Your task to perform on an android device: turn off wifi Image 0: 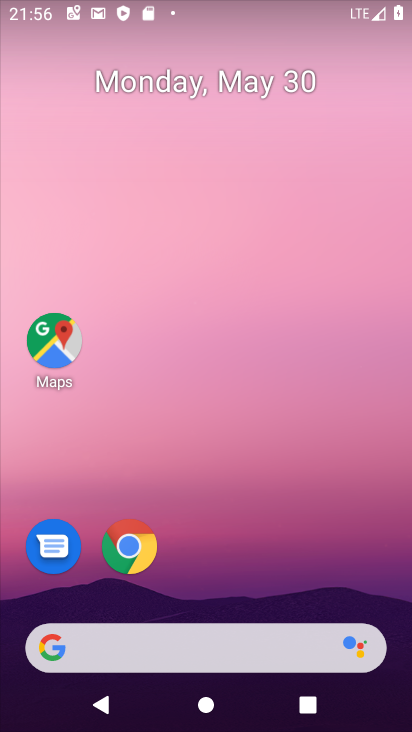
Step 0: drag from (371, 543) to (354, 161)
Your task to perform on an android device: turn off wifi Image 1: 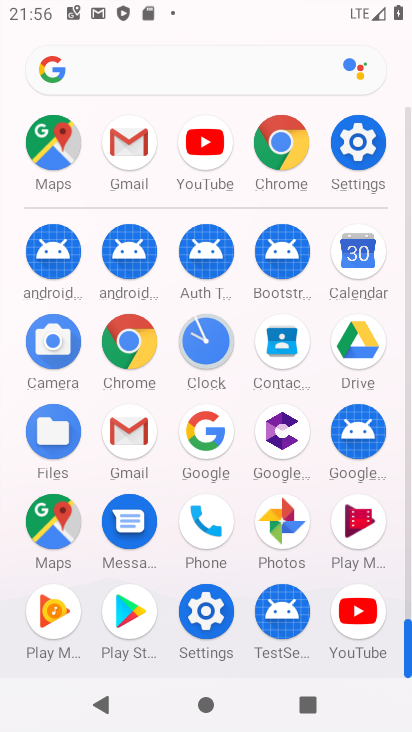
Step 1: click (358, 156)
Your task to perform on an android device: turn off wifi Image 2: 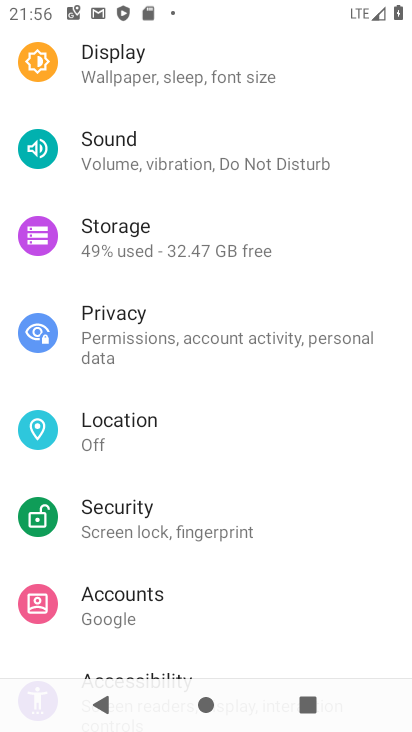
Step 2: drag from (294, 127) to (298, 646)
Your task to perform on an android device: turn off wifi Image 3: 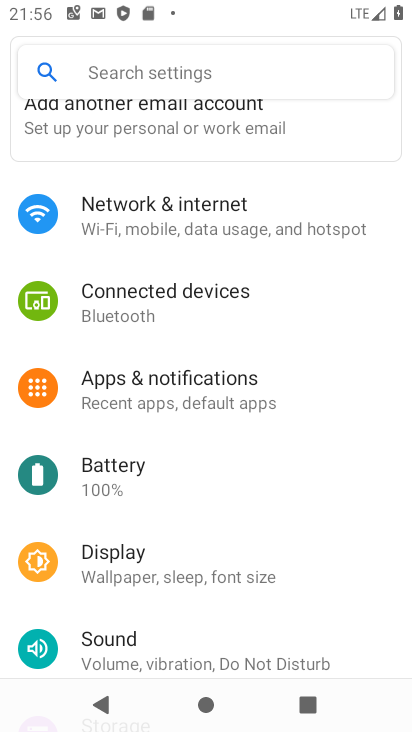
Step 3: drag from (299, 181) to (279, 507)
Your task to perform on an android device: turn off wifi Image 4: 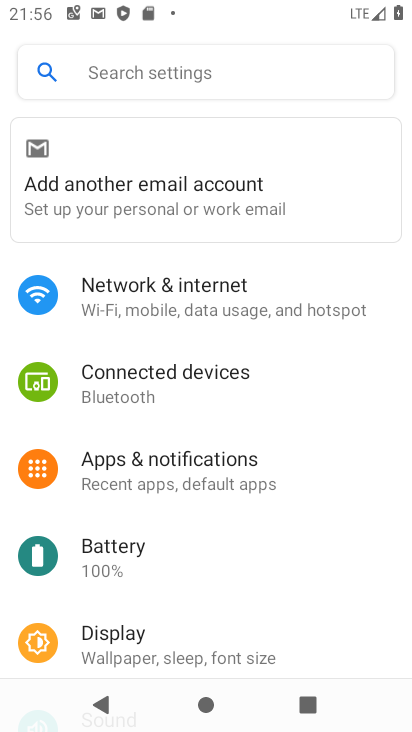
Step 4: click (312, 312)
Your task to perform on an android device: turn off wifi Image 5: 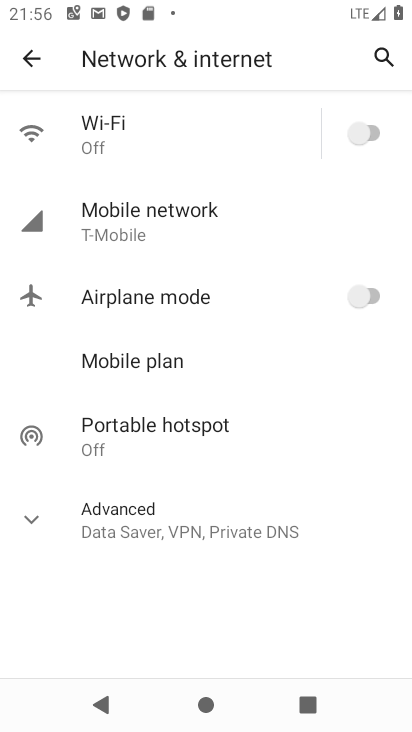
Step 5: task complete